Your task to perform on an android device: Go to accessibility settings Image 0: 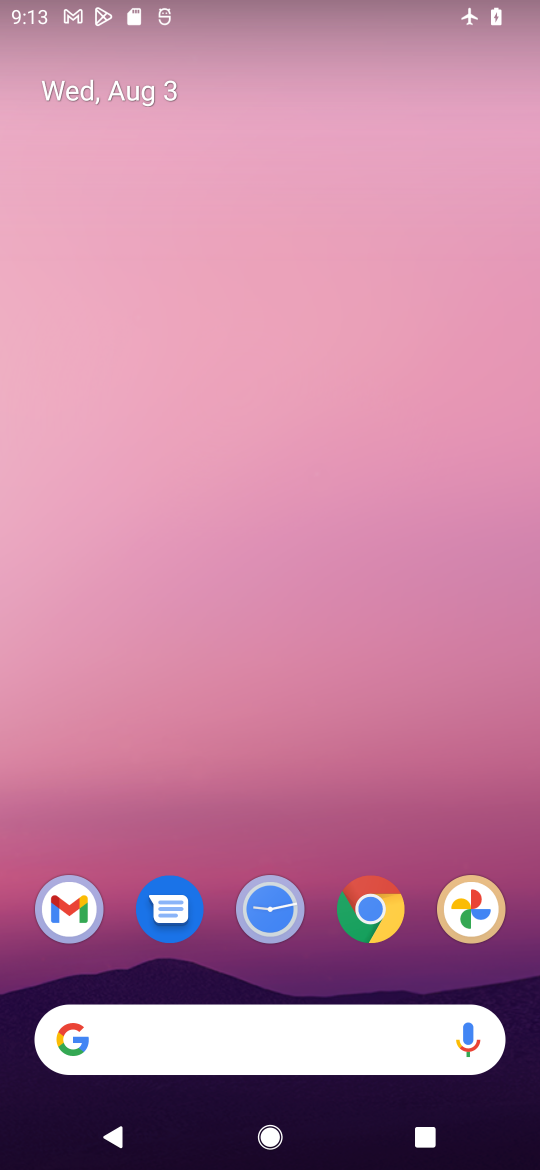
Step 0: drag from (433, 837) to (387, 250)
Your task to perform on an android device: Go to accessibility settings Image 1: 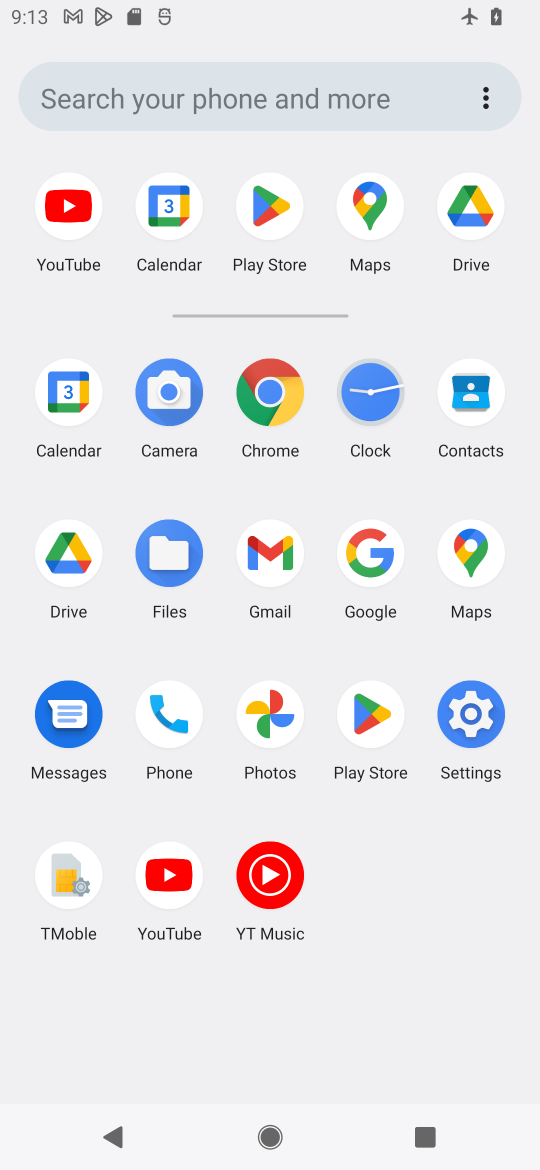
Step 1: click (485, 719)
Your task to perform on an android device: Go to accessibility settings Image 2: 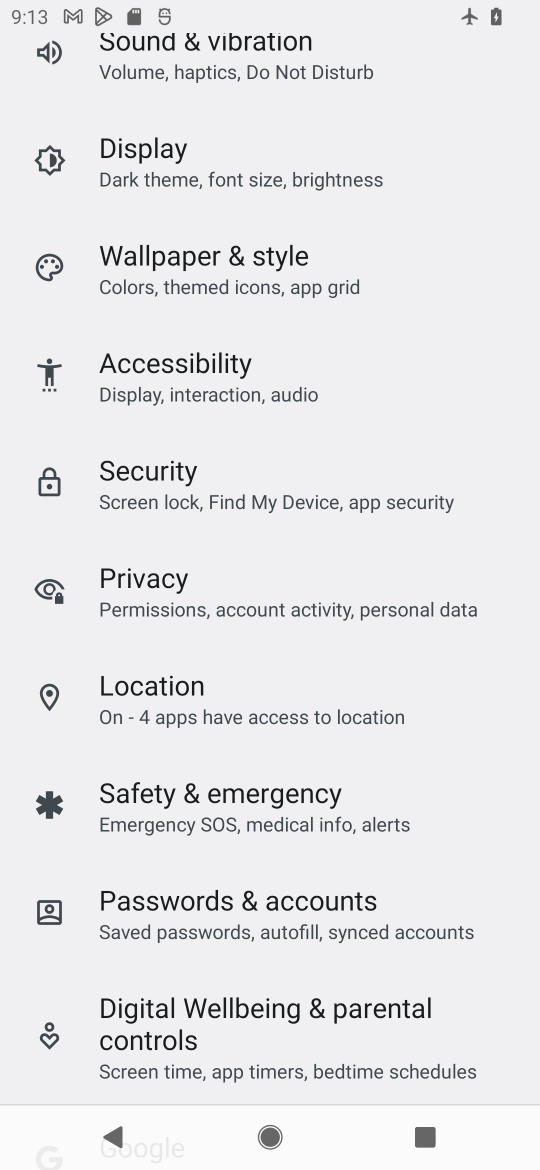
Step 2: drag from (486, 456) to (489, 678)
Your task to perform on an android device: Go to accessibility settings Image 3: 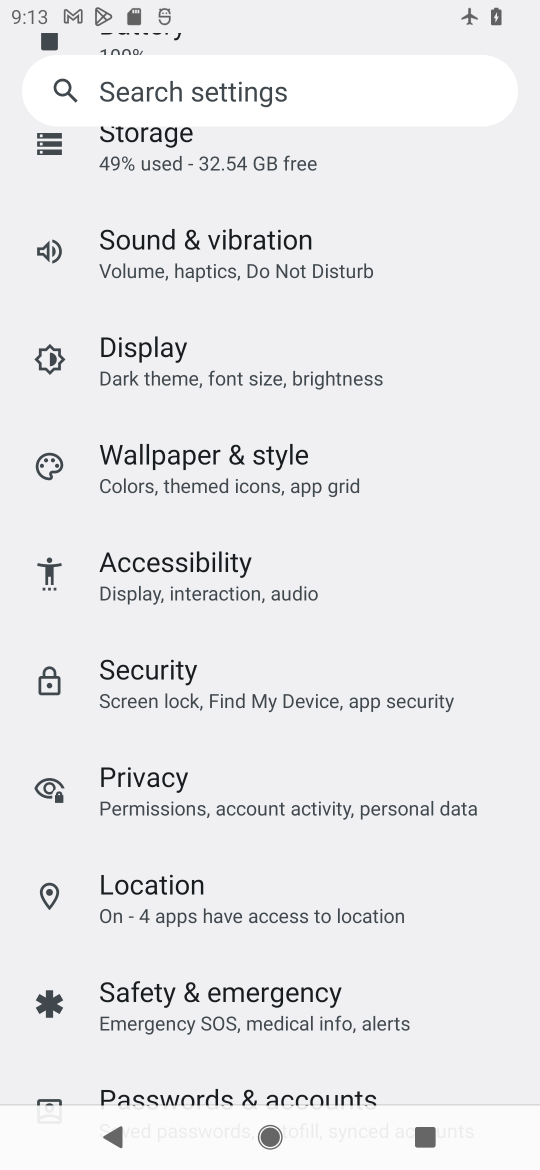
Step 3: drag from (495, 424) to (493, 654)
Your task to perform on an android device: Go to accessibility settings Image 4: 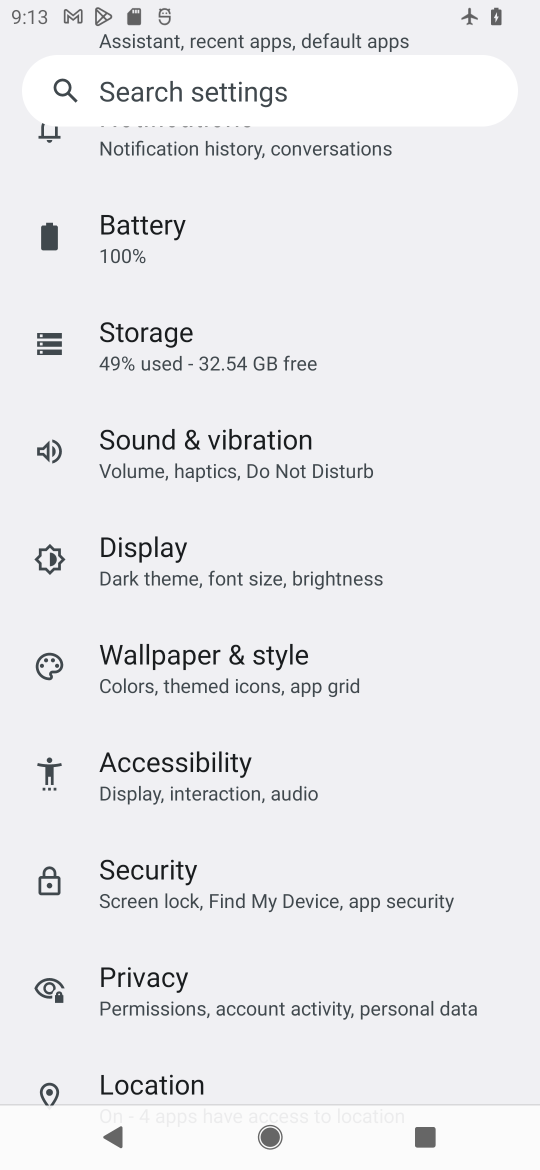
Step 4: drag from (493, 330) to (489, 676)
Your task to perform on an android device: Go to accessibility settings Image 5: 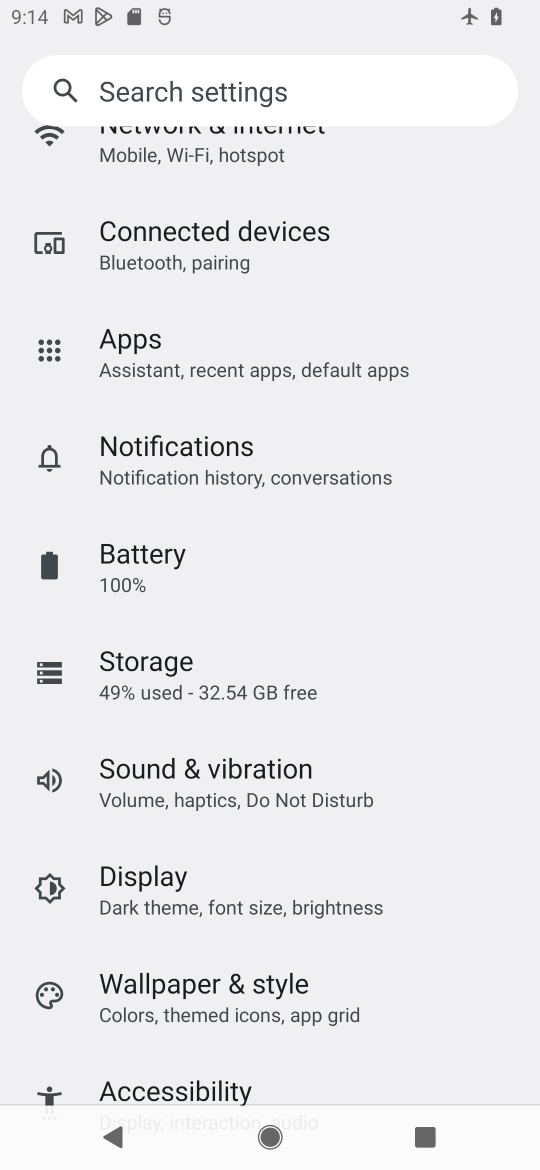
Step 5: drag from (477, 279) to (469, 669)
Your task to perform on an android device: Go to accessibility settings Image 6: 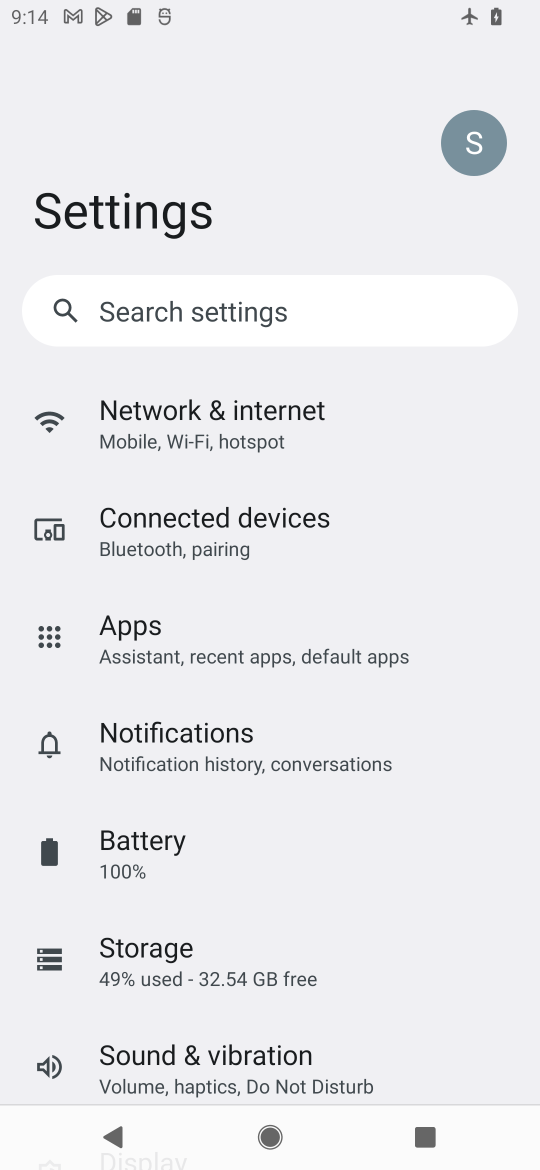
Step 6: drag from (447, 788) to (463, 664)
Your task to perform on an android device: Go to accessibility settings Image 7: 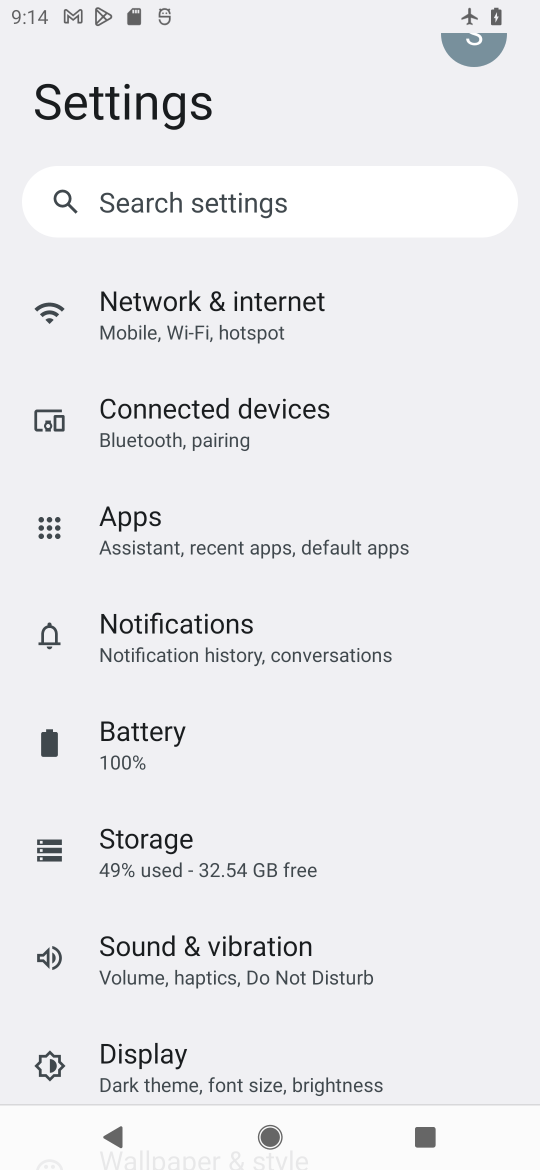
Step 7: drag from (439, 771) to (446, 622)
Your task to perform on an android device: Go to accessibility settings Image 8: 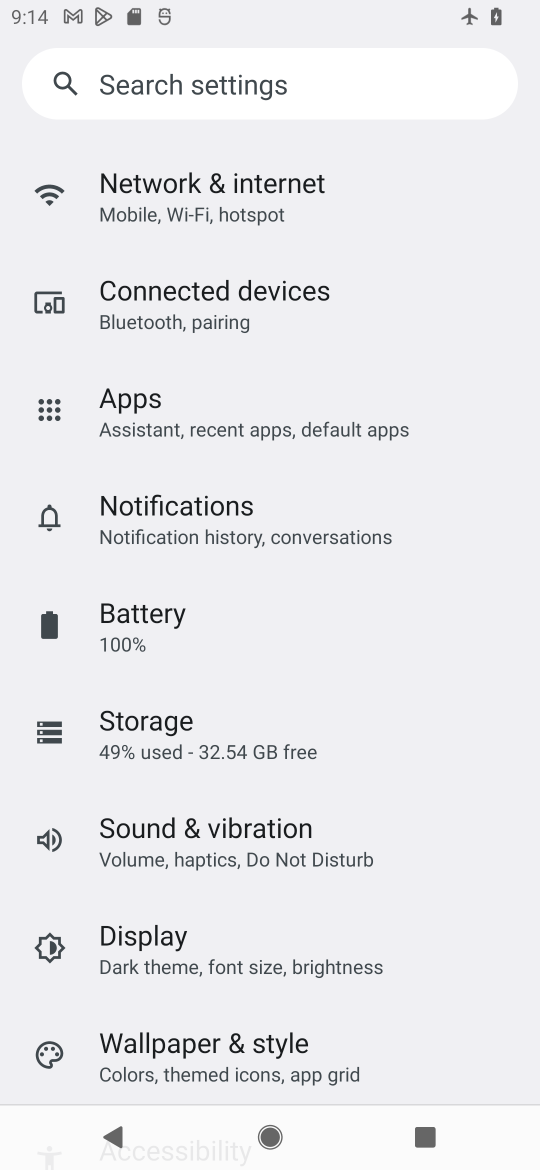
Step 8: drag from (436, 852) to (447, 695)
Your task to perform on an android device: Go to accessibility settings Image 9: 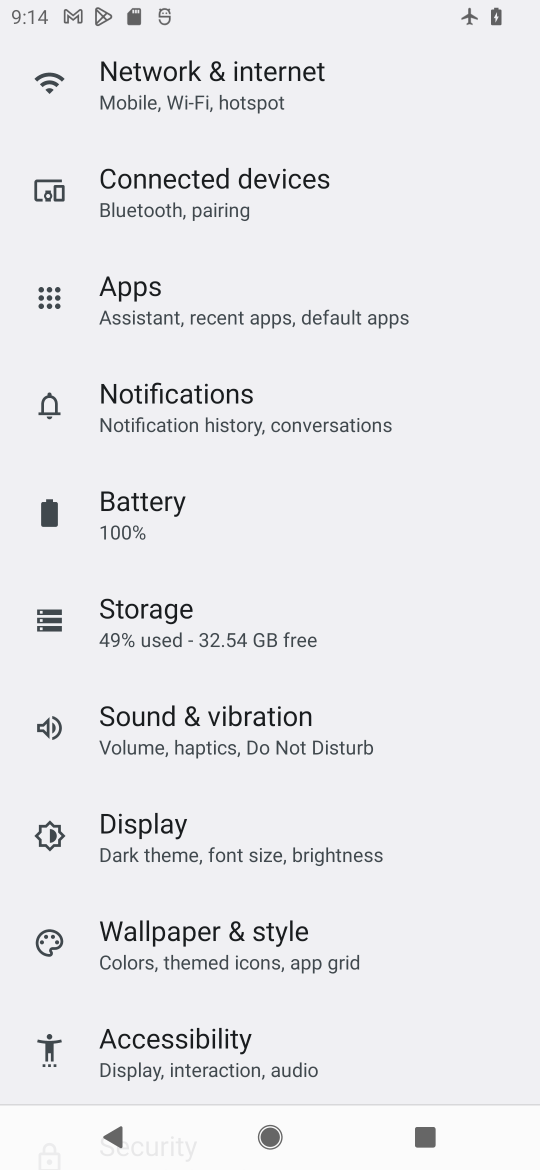
Step 9: drag from (446, 822) to (453, 662)
Your task to perform on an android device: Go to accessibility settings Image 10: 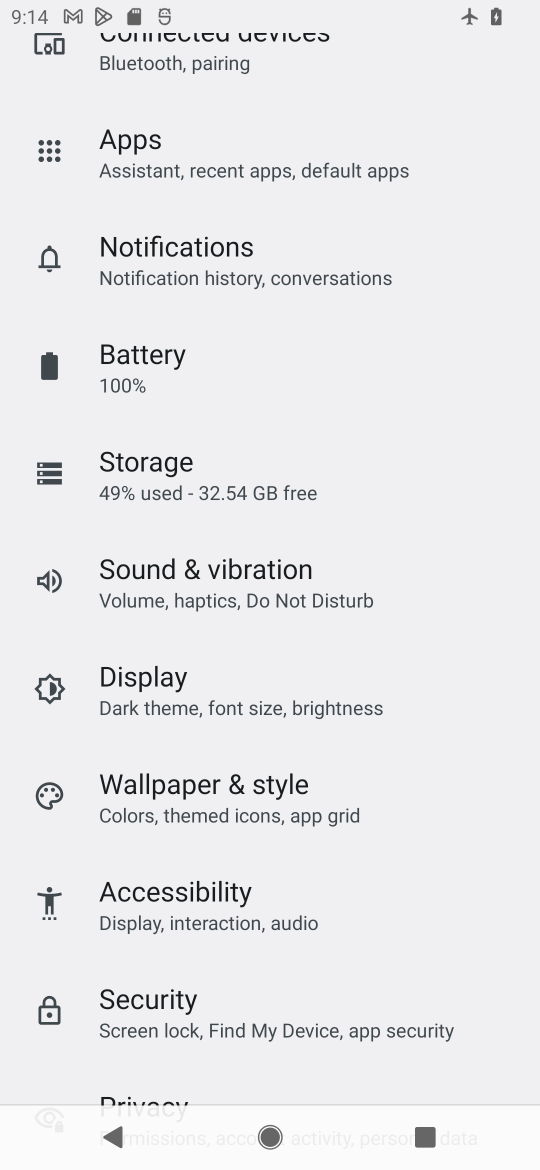
Step 10: drag from (447, 835) to (440, 587)
Your task to perform on an android device: Go to accessibility settings Image 11: 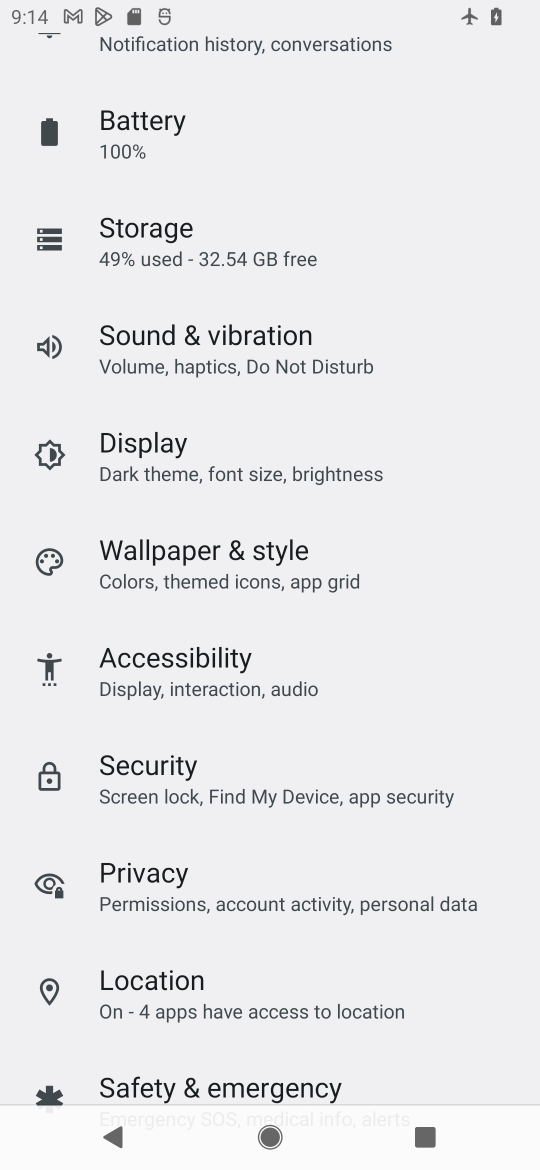
Step 11: click (263, 665)
Your task to perform on an android device: Go to accessibility settings Image 12: 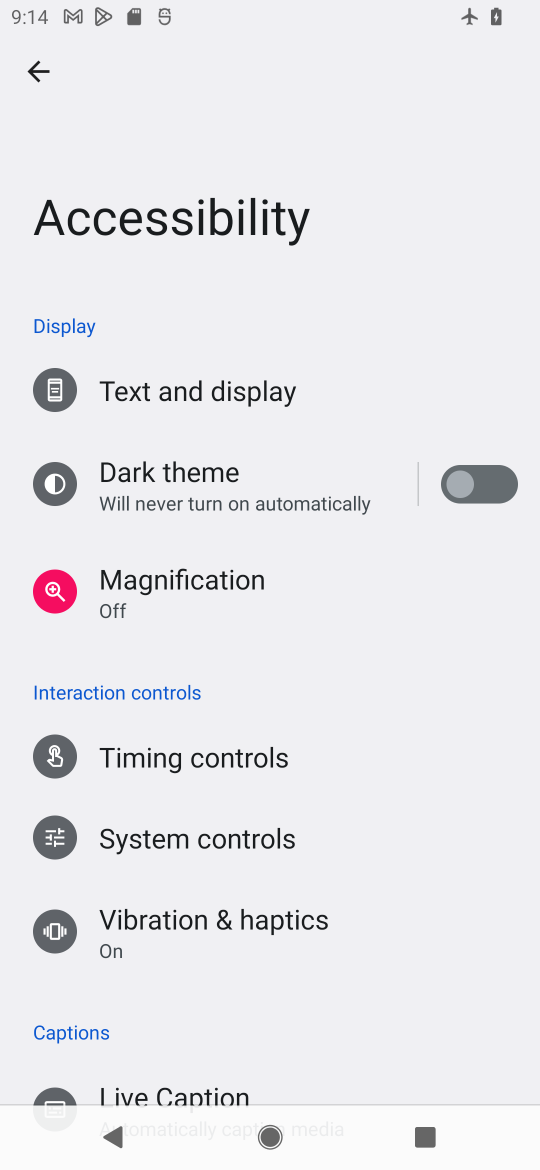
Step 12: task complete